Your task to perform on an android device: open device folders in google photos Image 0: 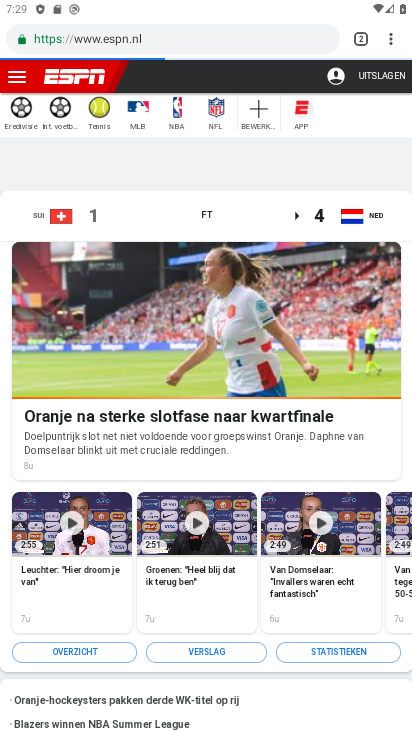
Step 0: press home button
Your task to perform on an android device: open device folders in google photos Image 1: 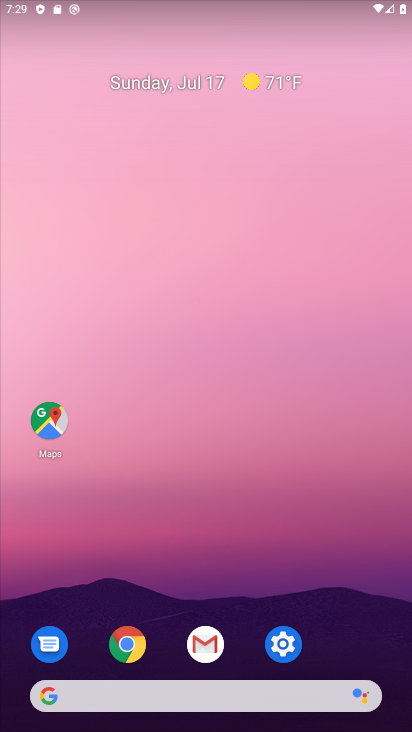
Step 1: drag from (249, 719) to (176, 177)
Your task to perform on an android device: open device folders in google photos Image 2: 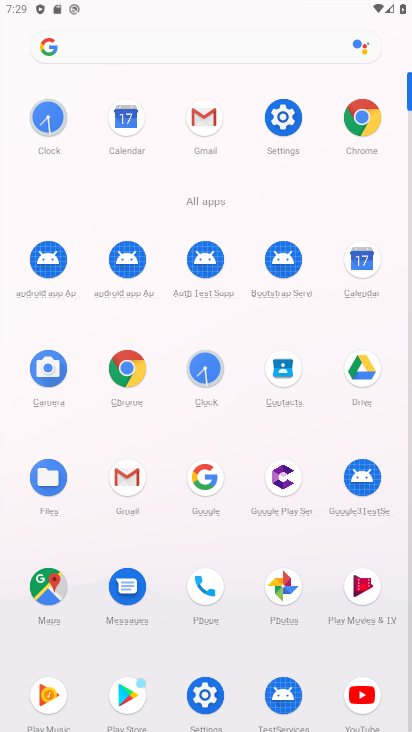
Step 2: click (273, 585)
Your task to perform on an android device: open device folders in google photos Image 3: 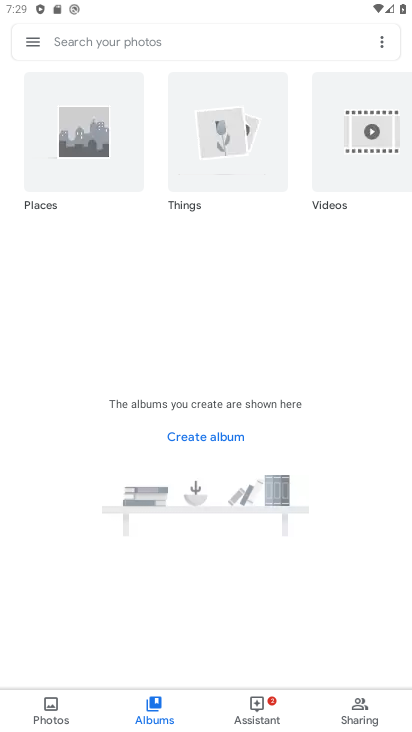
Step 3: click (44, 38)
Your task to perform on an android device: open device folders in google photos Image 4: 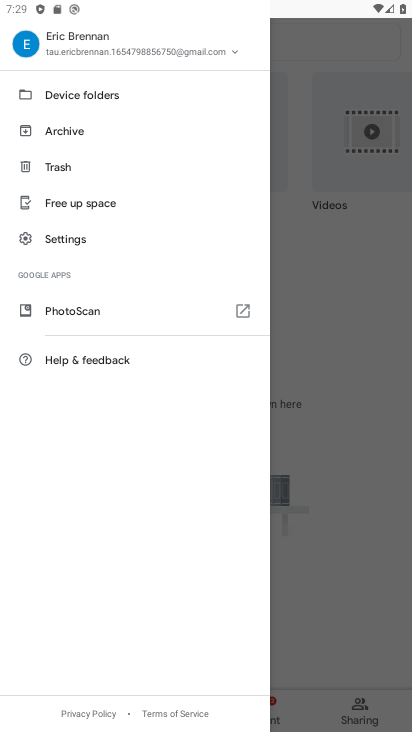
Step 4: click (76, 97)
Your task to perform on an android device: open device folders in google photos Image 5: 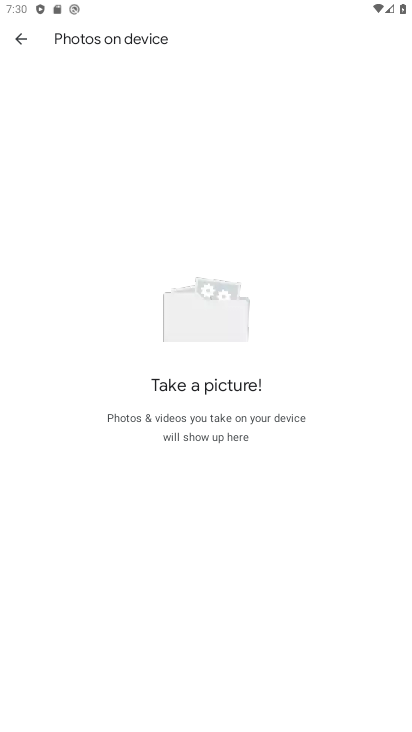
Step 5: task complete